Your task to perform on an android device: delete the emails in spam in the gmail app Image 0: 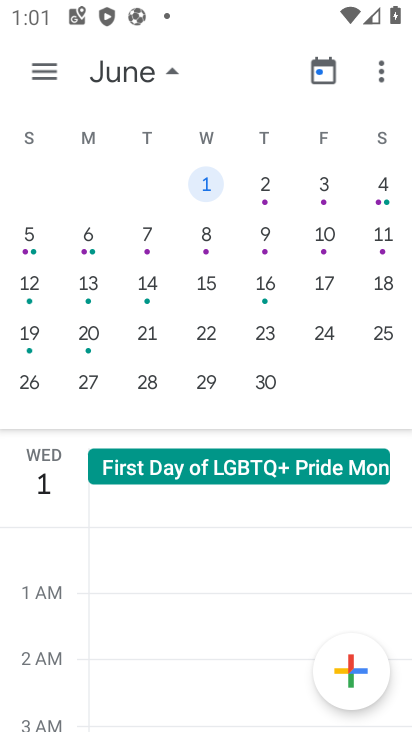
Step 0: press home button
Your task to perform on an android device: delete the emails in spam in the gmail app Image 1: 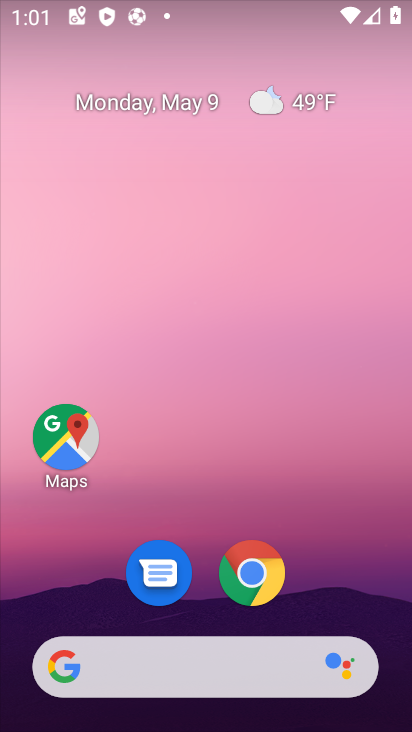
Step 1: drag from (242, 722) to (277, 124)
Your task to perform on an android device: delete the emails in spam in the gmail app Image 2: 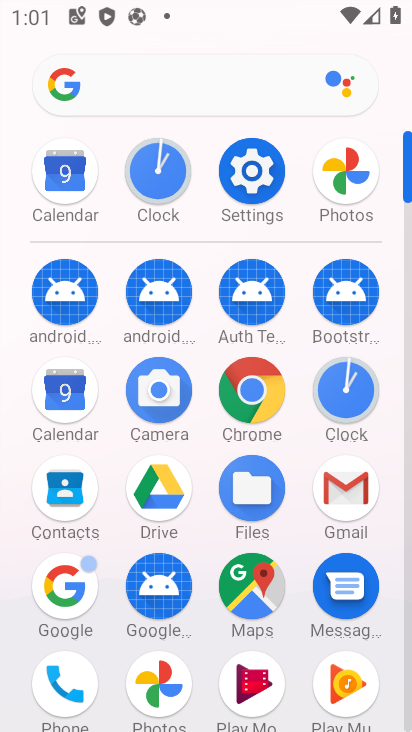
Step 2: click (350, 502)
Your task to perform on an android device: delete the emails in spam in the gmail app Image 3: 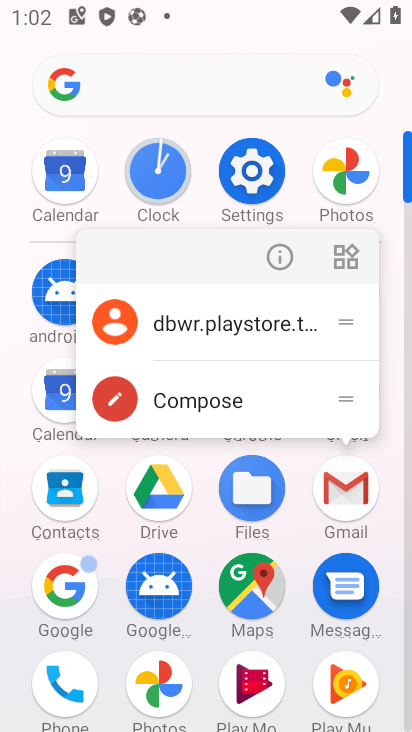
Step 3: click (316, 493)
Your task to perform on an android device: delete the emails in spam in the gmail app Image 4: 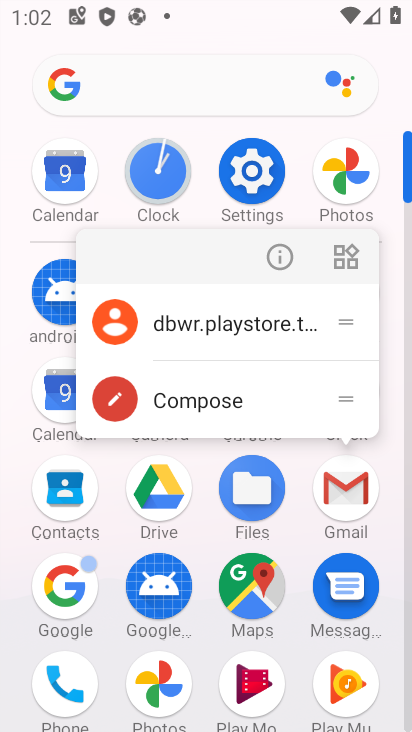
Step 4: click (316, 493)
Your task to perform on an android device: delete the emails in spam in the gmail app Image 5: 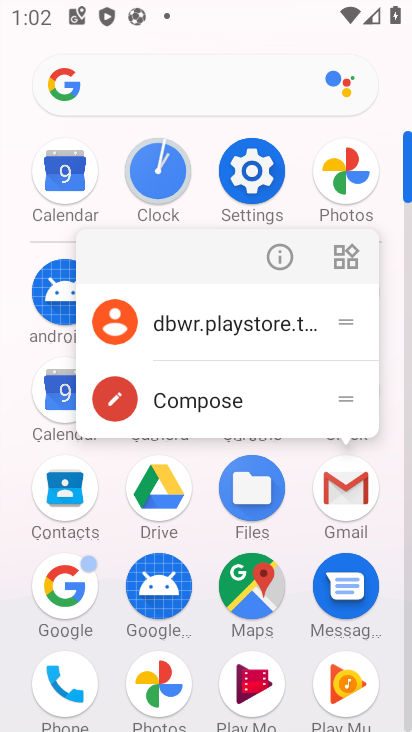
Step 5: click (316, 493)
Your task to perform on an android device: delete the emails in spam in the gmail app Image 6: 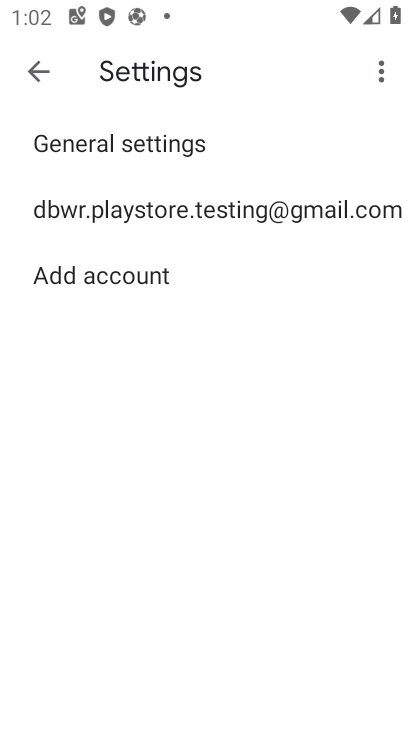
Step 6: click (24, 74)
Your task to perform on an android device: delete the emails in spam in the gmail app Image 7: 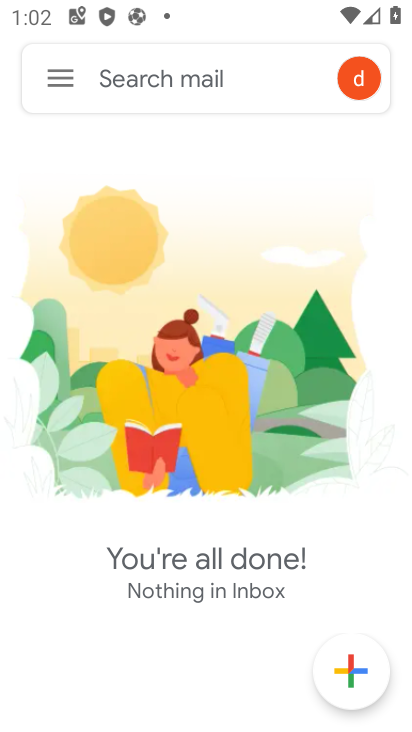
Step 7: click (41, 78)
Your task to perform on an android device: delete the emails in spam in the gmail app Image 8: 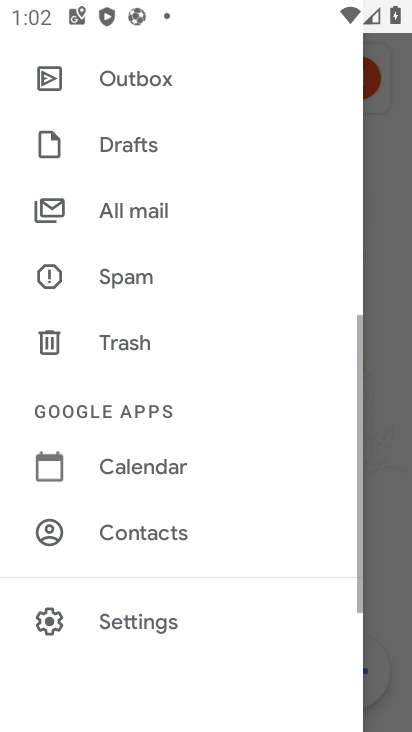
Step 8: click (155, 277)
Your task to perform on an android device: delete the emails in spam in the gmail app Image 9: 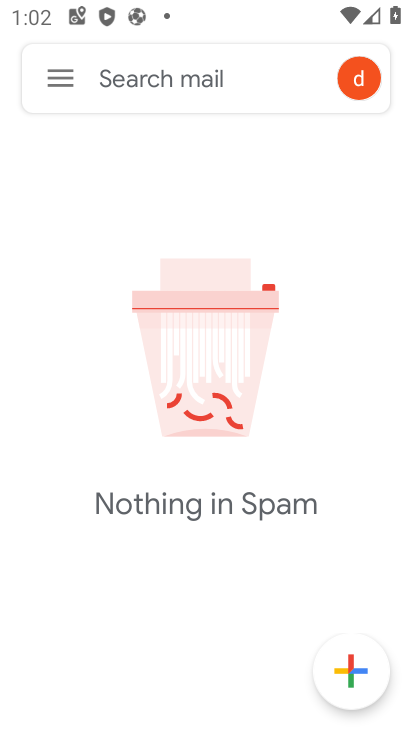
Step 9: task complete